Your task to perform on an android device: What is the news today? Image 0: 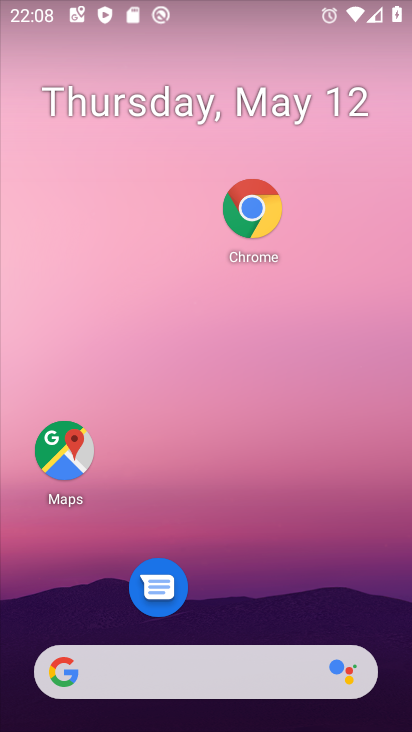
Step 0: drag from (351, 389) to (377, 172)
Your task to perform on an android device: What is the news today? Image 1: 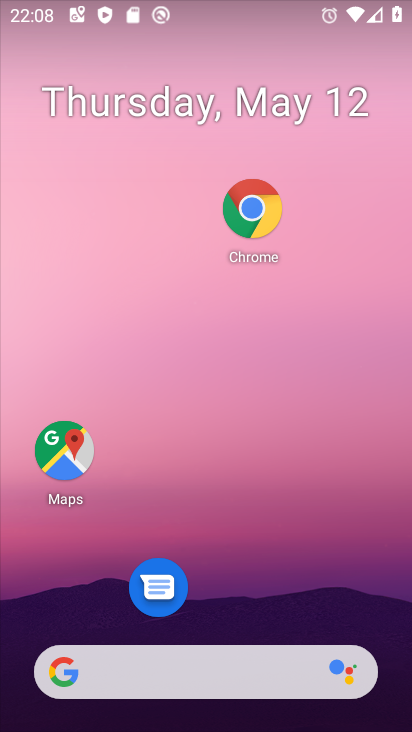
Step 1: drag from (282, 471) to (310, 175)
Your task to perform on an android device: What is the news today? Image 2: 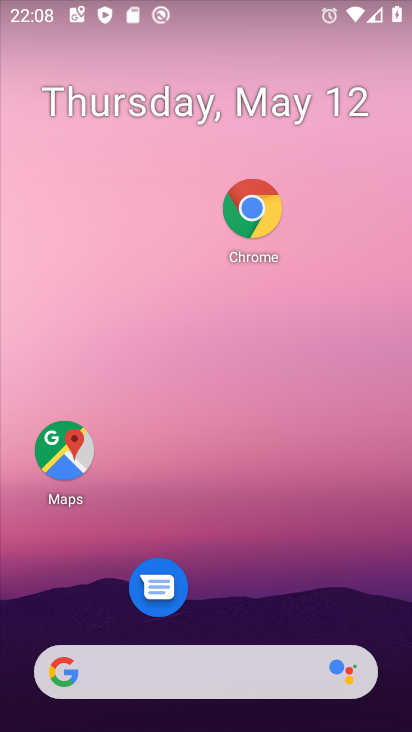
Step 2: drag from (229, 583) to (215, 164)
Your task to perform on an android device: What is the news today? Image 3: 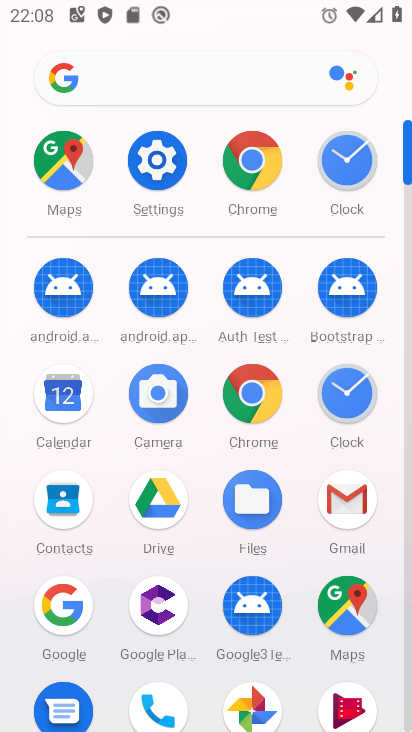
Step 3: click (251, 152)
Your task to perform on an android device: What is the news today? Image 4: 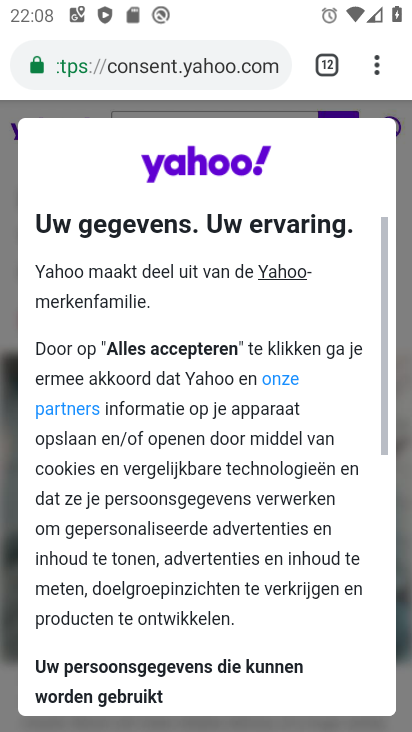
Step 4: click (358, 59)
Your task to perform on an android device: What is the news today? Image 5: 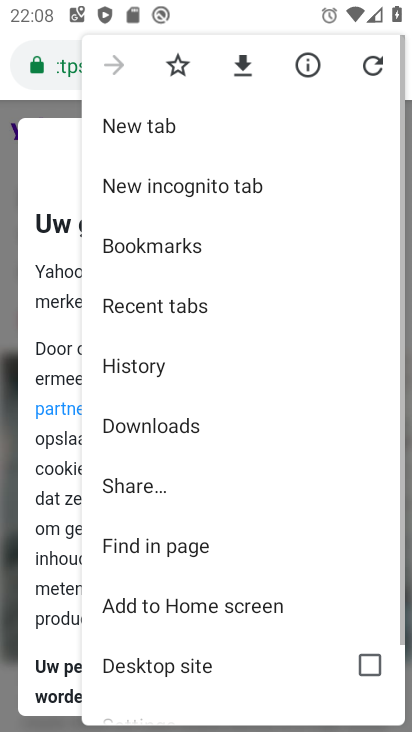
Step 5: click (118, 122)
Your task to perform on an android device: What is the news today? Image 6: 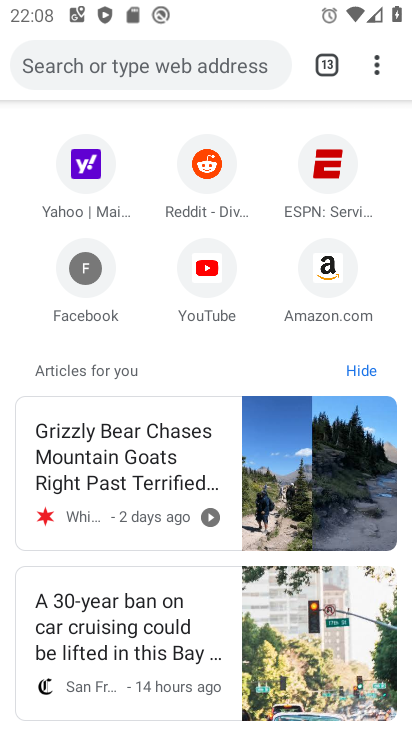
Step 6: click (198, 58)
Your task to perform on an android device: What is the news today? Image 7: 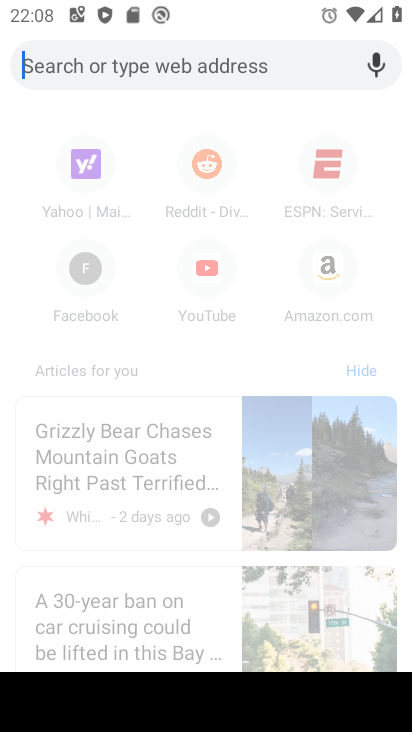
Step 7: type "What is the news today?"
Your task to perform on an android device: What is the news today? Image 8: 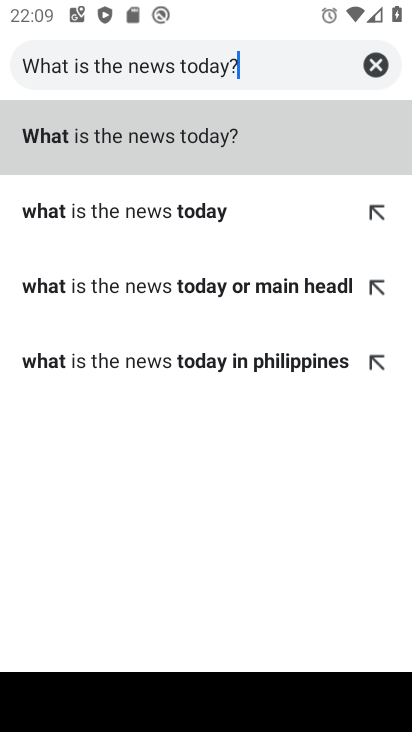
Step 8: click (136, 133)
Your task to perform on an android device: What is the news today? Image 9: 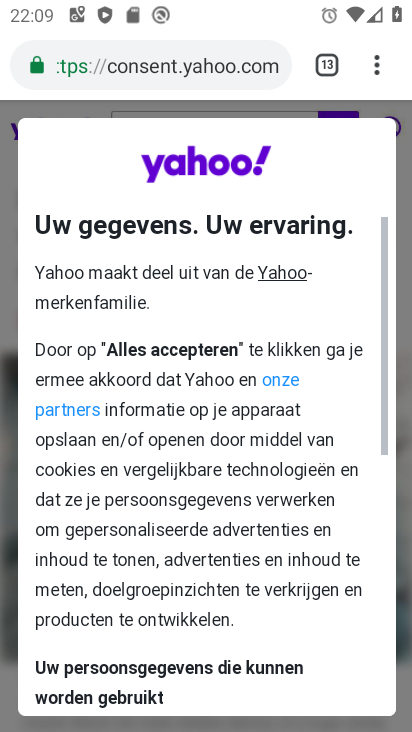
Step 9: click (3, 161)
Your task to perform on an android device: What is the news today? Image 10: 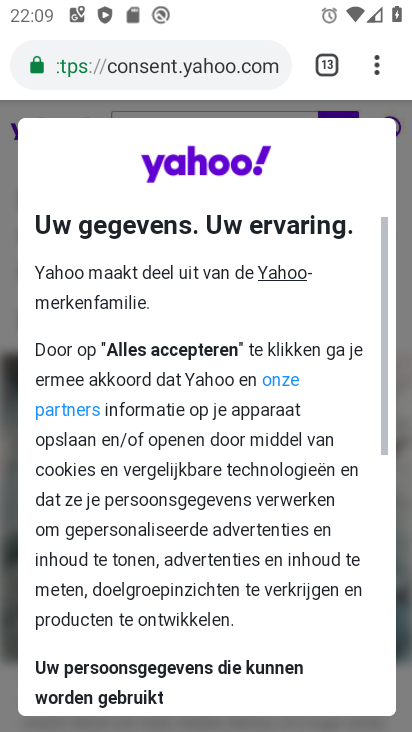
Step 10: press back button
Your task to perform on an android device: What is the news today? Image 11: 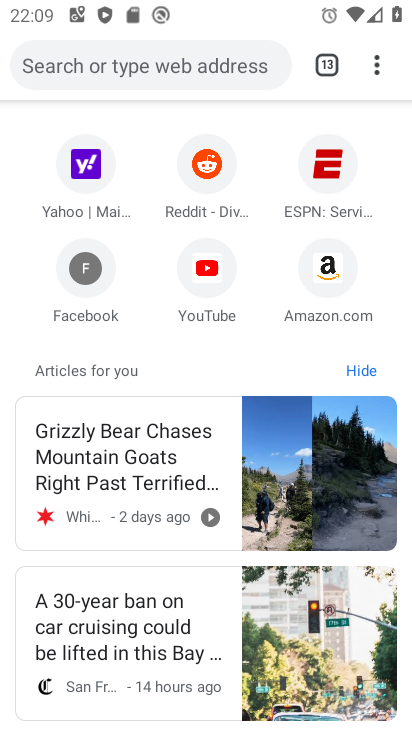
Step 11: click (148, 53)
Your task to perform on an android device: What is the news today? Image 12: 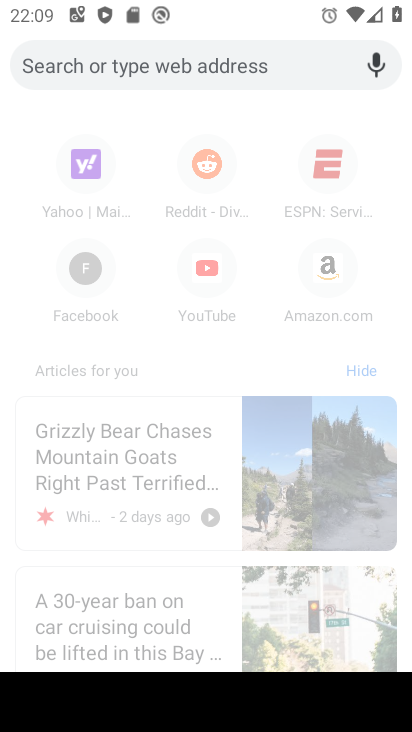
Step 12: type "What is the news today?"
Your task to perform on an android device: What is the news today? Image 13: 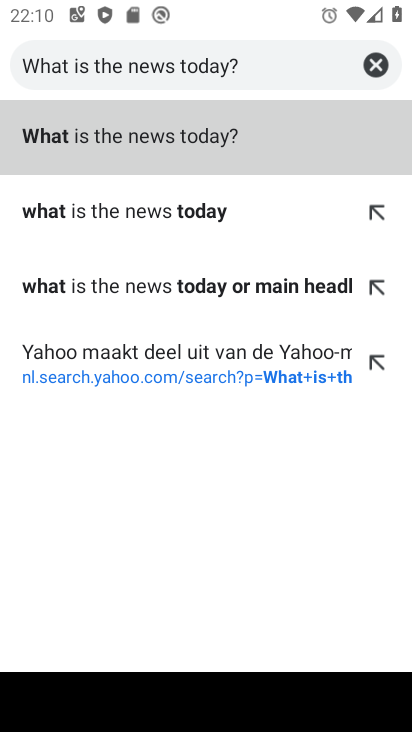
Step 13: click (197, 134)
Your task to perform on an android device: What is the news today? Image 14: 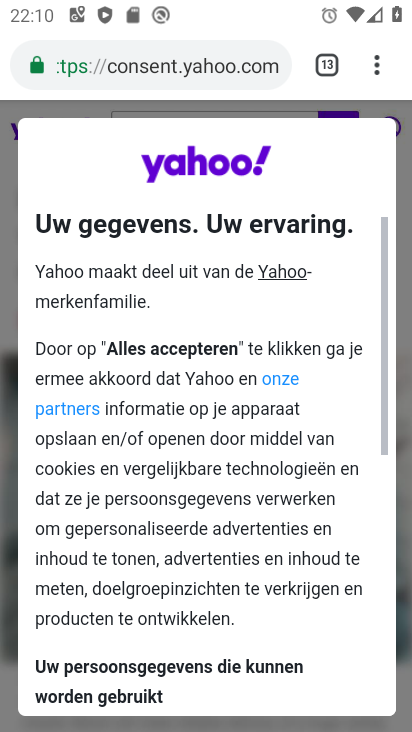
Step 14: task complete